Your task to perform on an android device: Go to display settings Image 0: 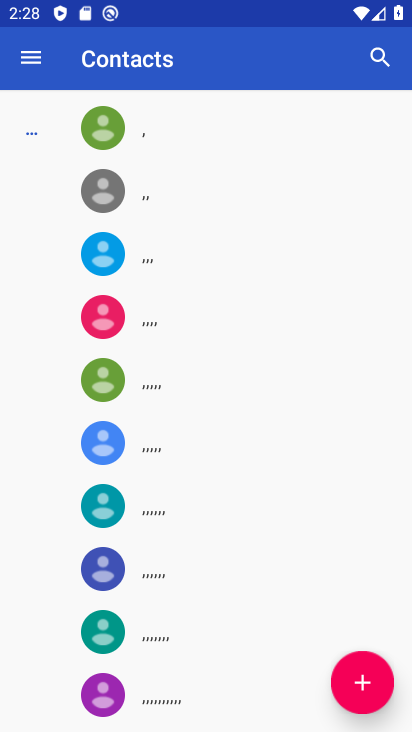
Step 0: press home button
Your task to perform on an android device: Go to display settings Image 1: 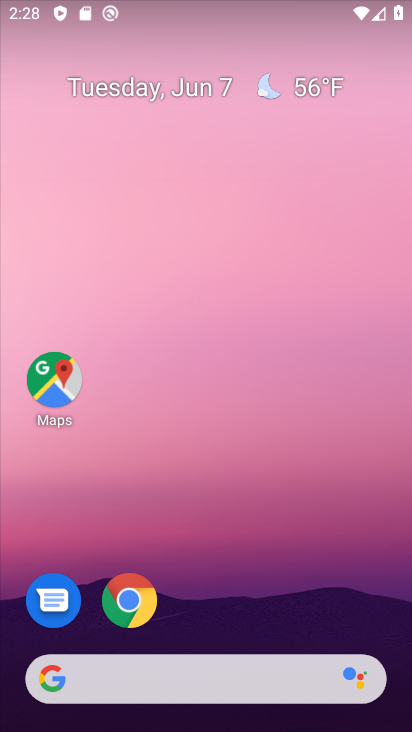
Step 1: drag from (406, 714) to (385, 106)
Your task to perform on an android device: Go to display settings Image 2: 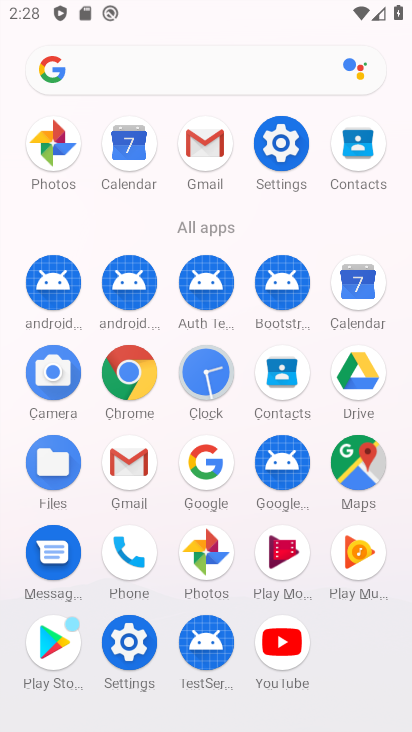
Step 2: click (294, 145)
Your task to perform on an android device: Go to display settings Image 3: 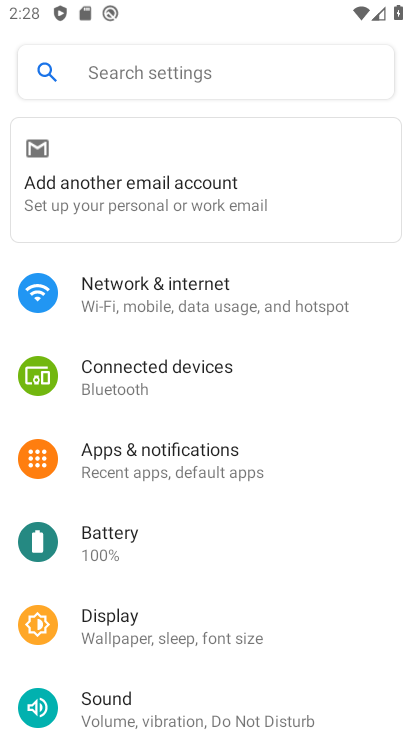
Step 3: click (136, 619)
Your task to perform on an android device: Go to display settings Image 4: 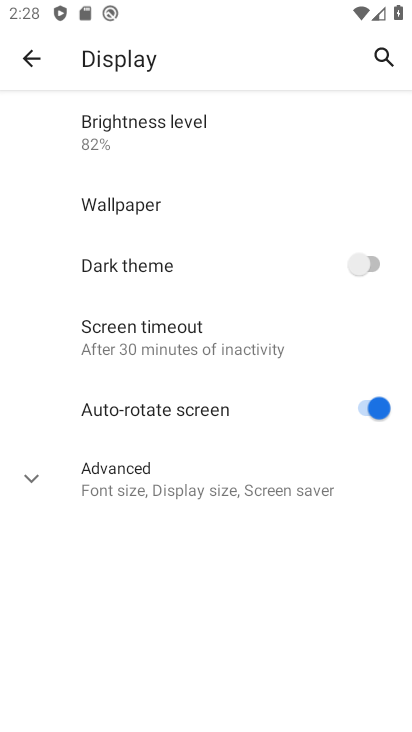
Step 4: click (17, 477)
Your task to perform on an android device: Go to display settings Image 5: 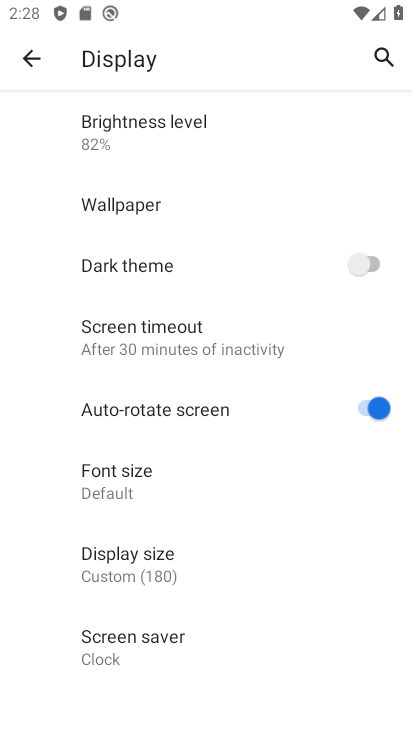
Step 5: task complete